Your task to perform on an android device: check data usage Image 0: 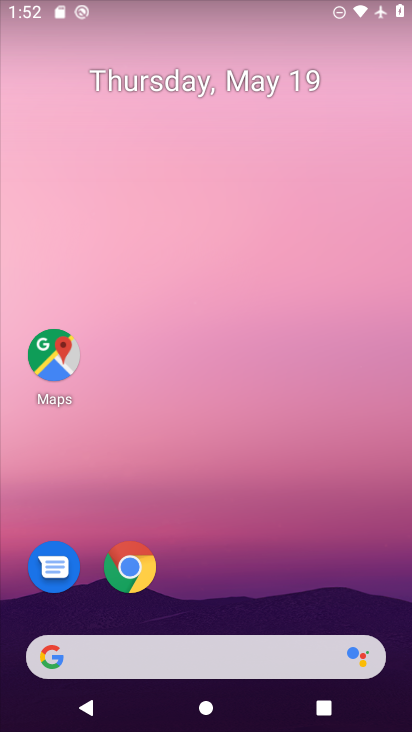
Step 0: drag from (231, 555) to (238, 79)
Your task to perform on an android device: check data usage Image 1: 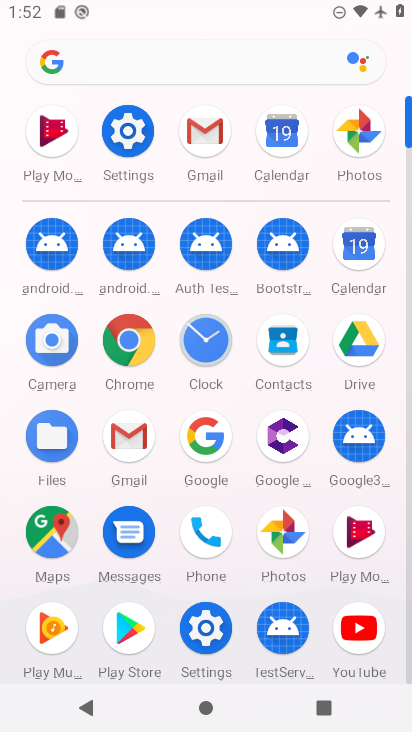
Step 1: click (130, 130)
Your task to perform on an android device: check data usage Image 2: 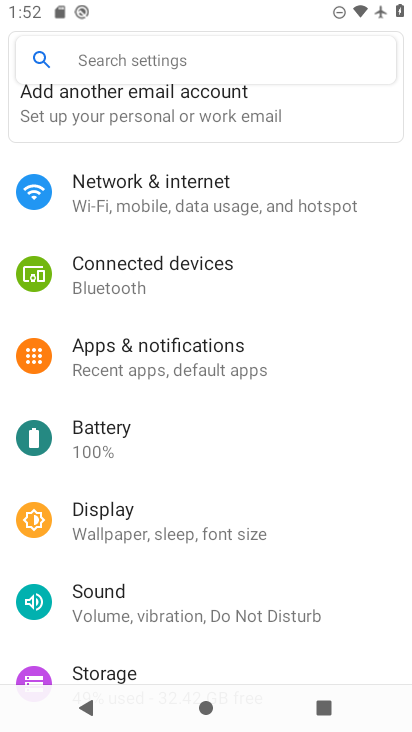
Step 2: click (236, 189)
Your task to perform on an android device: check data usage Image 3: 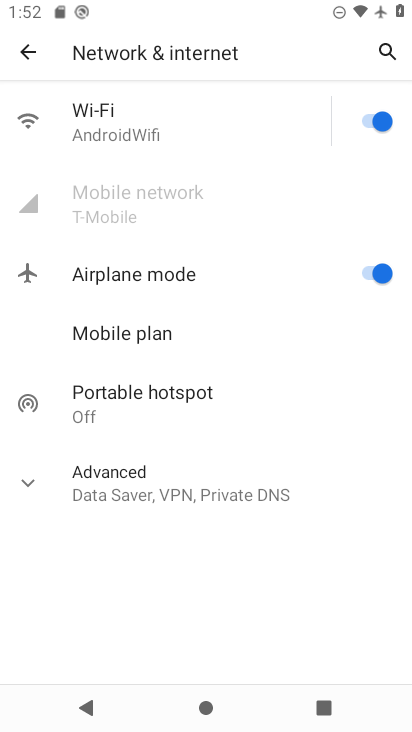
Step 3: click (366, 271)
Your task to perform on an android device: check data usage Image 4: 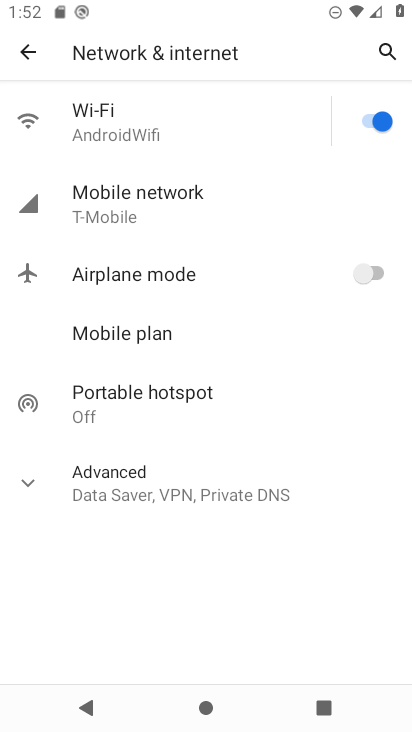
Step 4: click (316, 190)
Your task to perform on an android device: check data usage Image 5: 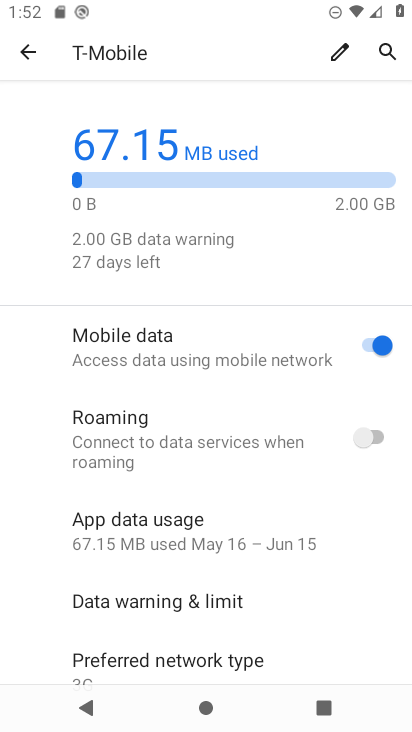
Step 5: task complete